Your task to perform on an android device: delete location history Image 0: 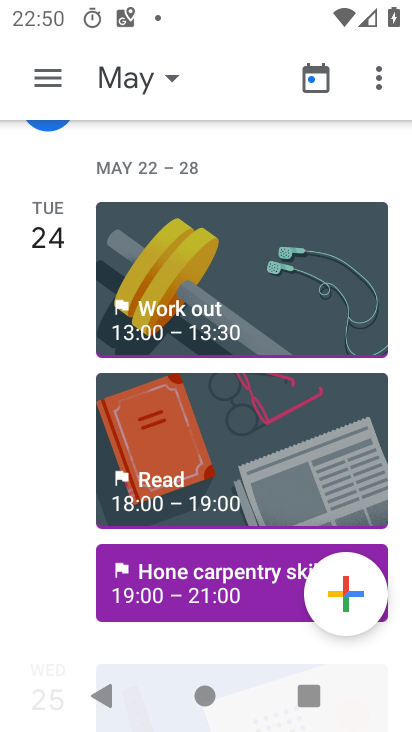
Step 0: press home button
Your task to perform on an android device: delete location history Image 1: 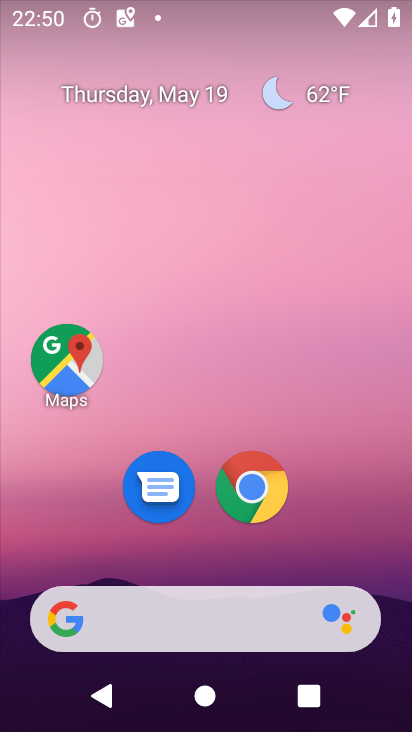
Step 1: drag from (330, 542) to (312, 148)
Your task to perform on an android device: delete location history Image 2: 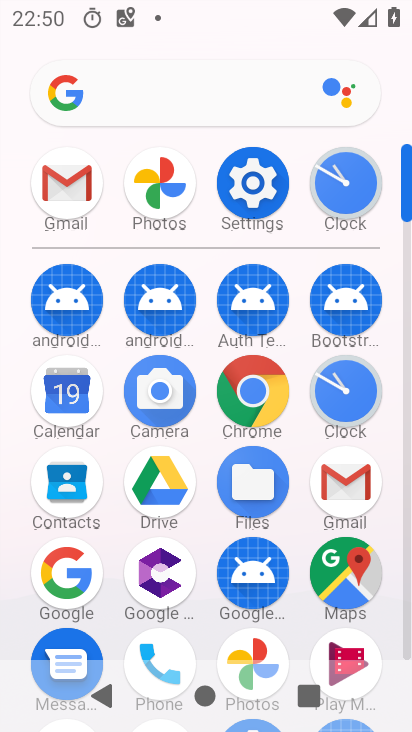
Step 2: click (258, 177)
Your task to perform on an android device: delete location history Image 3: 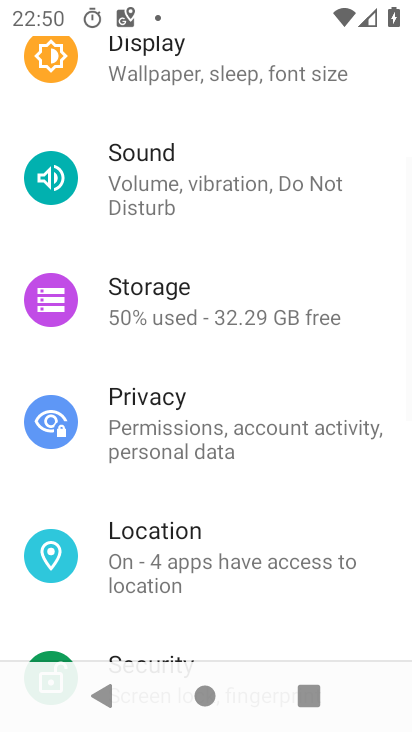
Step 3: click (216, 557)
Your task to perform on an android device: delete location history Image 4: 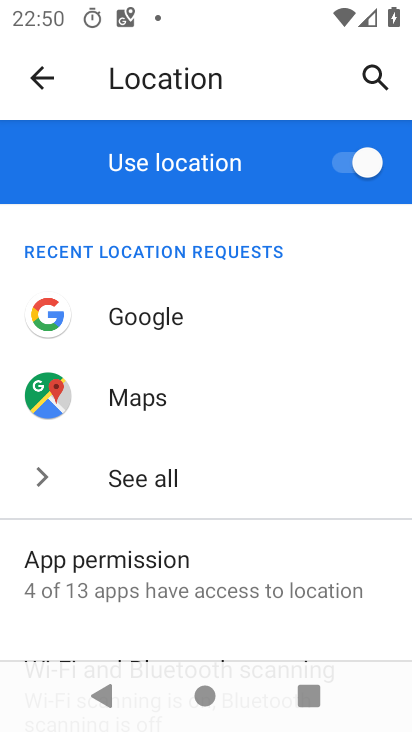
Step 4: drag from (239, 569) to (245, 363)
Your task to perform on an android device: delete location history Image 5: 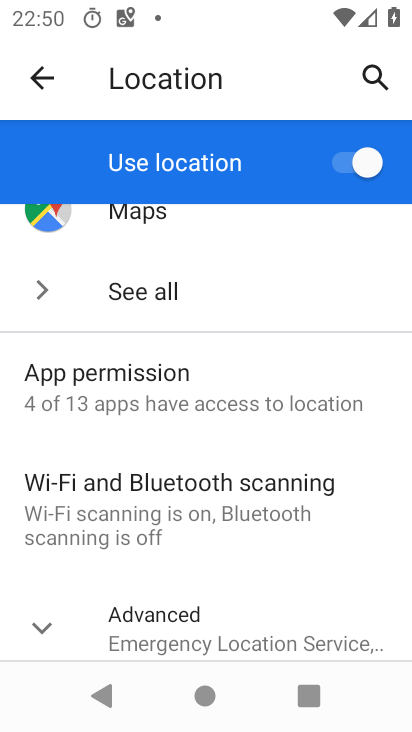
Step 5: drag from (249, 617) to (261, 366)
Your task to perform on an android device: delete location history Image 6: 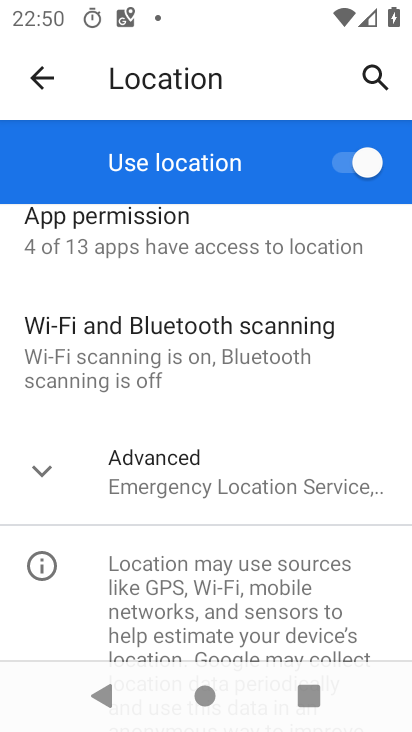
Step 6: click (247, 486)
Your task to perform on an android device: delete location history Image 7: 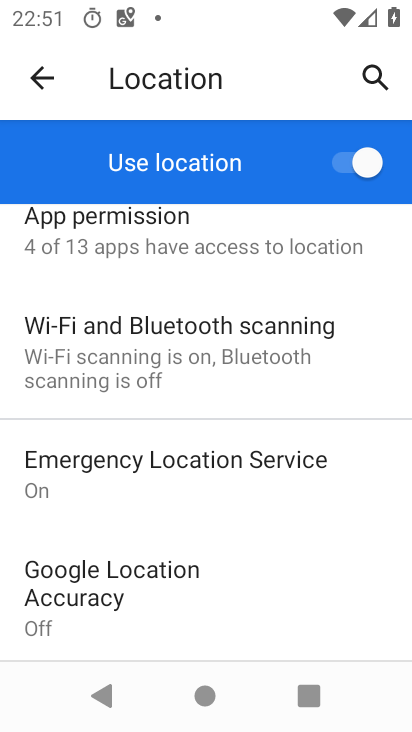
Step 7: drag from (300, 613) to (295, 350)
Your task to perform on an android device: delete location history Image 8: 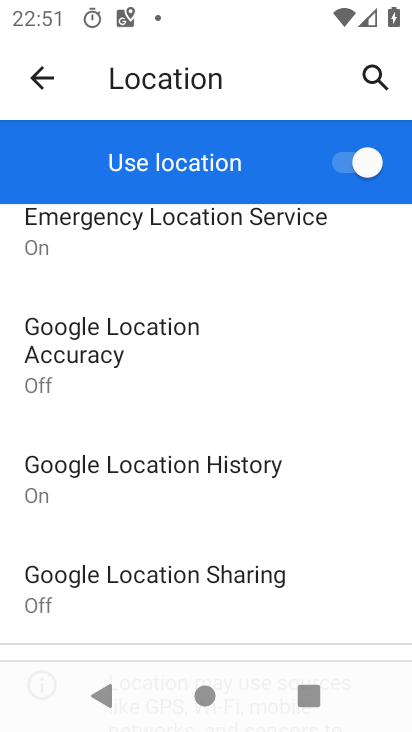
Step 8: click (218, 478)
Your task to perform on an android device: delete location history Image 9: 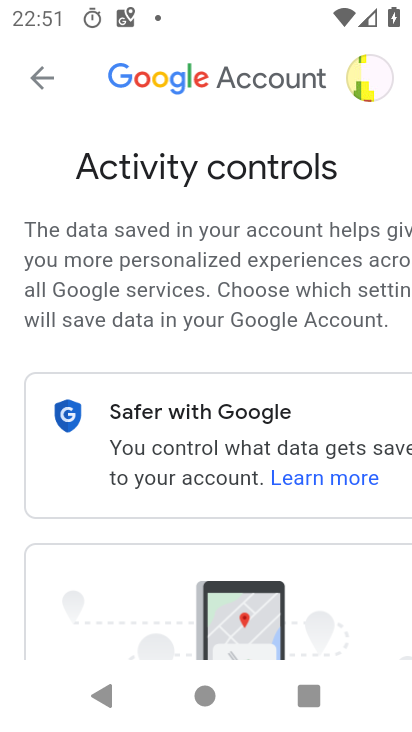
Step 9: drag from (315, 579) to (275, 369)
Your task to perform on an android device: delete location history Image 10: 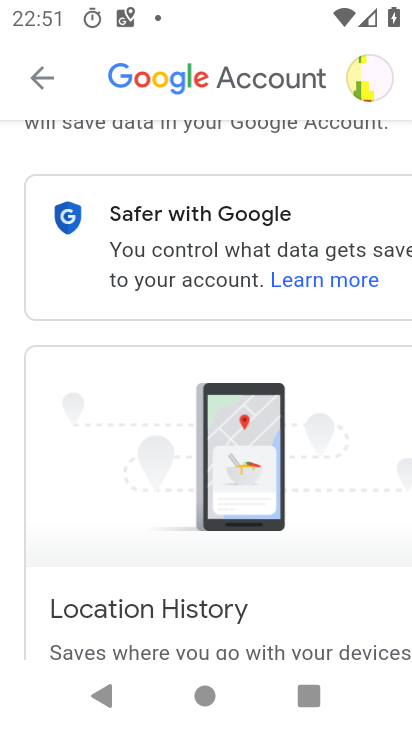
Step 10: drag from (318, 596) to (292, 316)
Your task to perform on an android device: delete location history Image 11: 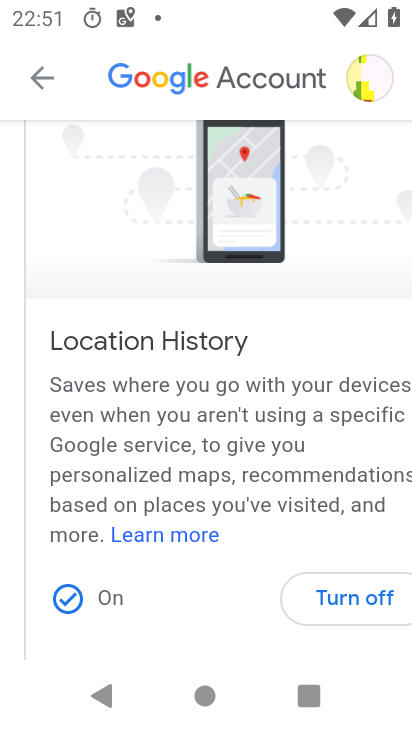
Step 11: drag from (233, 569) to (191, 278)
Your task to perform on an android device: delete location history Image 12: 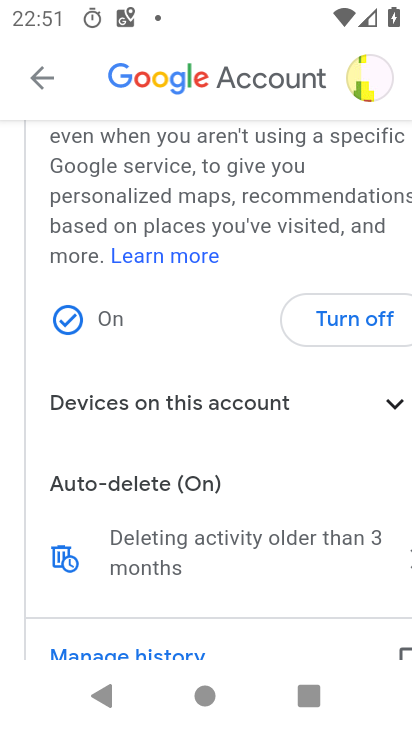
Step 12: drag from (296, 580) to (227, 242)
Your task to perform on an android device: delete location history Image 13: 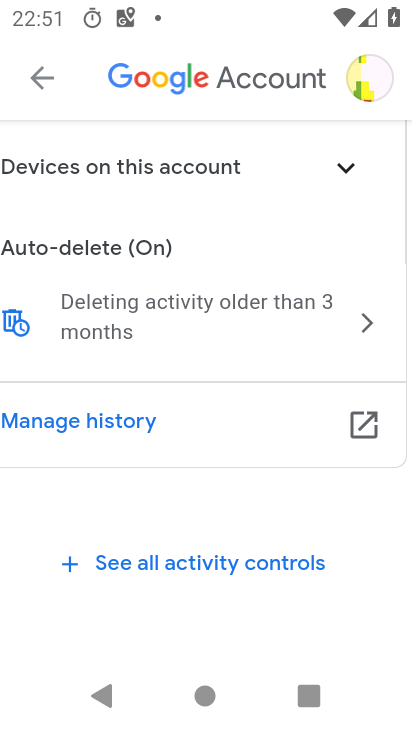
Step 13: click (357, 430)
Your task to perform on an android device: delete location history Image 14: 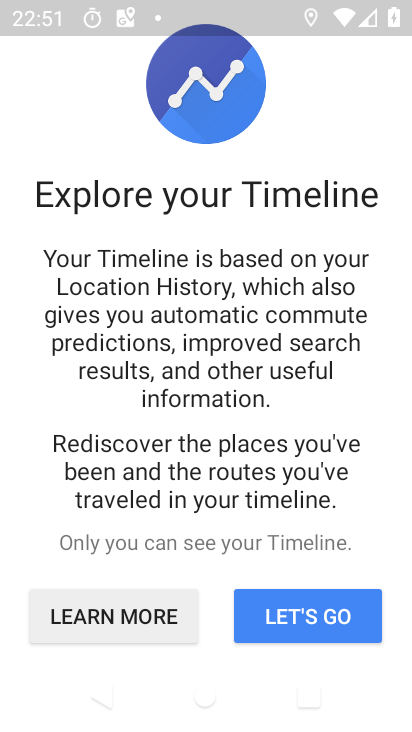
Step 14: click (346, 623)
Your task to perform on an android device: delete location history Image 15: 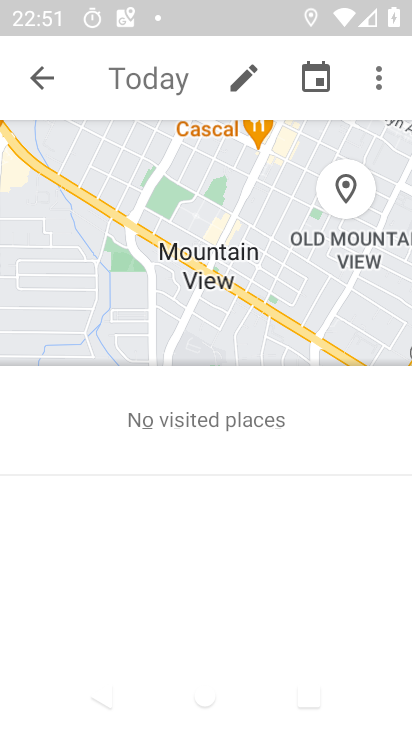
Step 15: click (383, 80)
Your task to perform on an android device: delete location history Image 16: 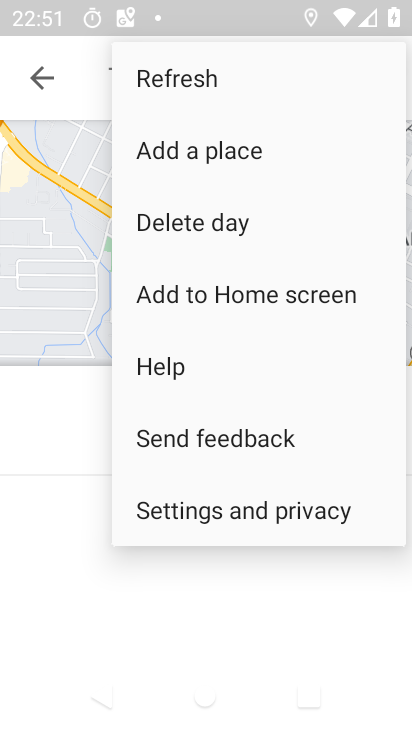
Step 16: click (261, 513)
Your task to perform on an android device: delete location history Image 17: 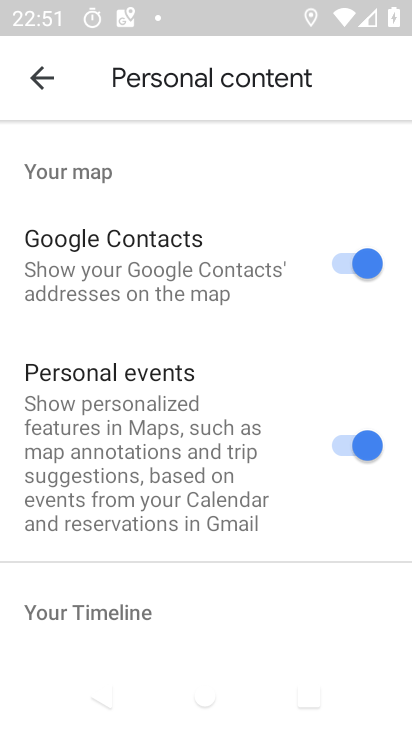
Step 17: drag from (260, 563) to (239, 280)
Your task to perform on an android device: delete location history Image 18: 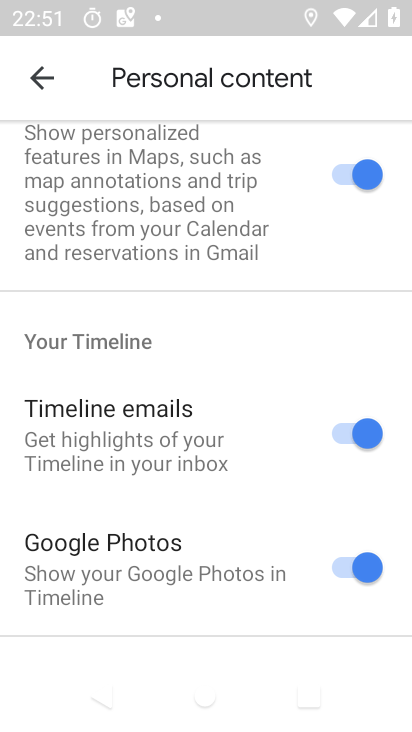
Step 18: drag from (243, 602) to (238, 350)
Your task to perform on an android device: delete location history Image 19: 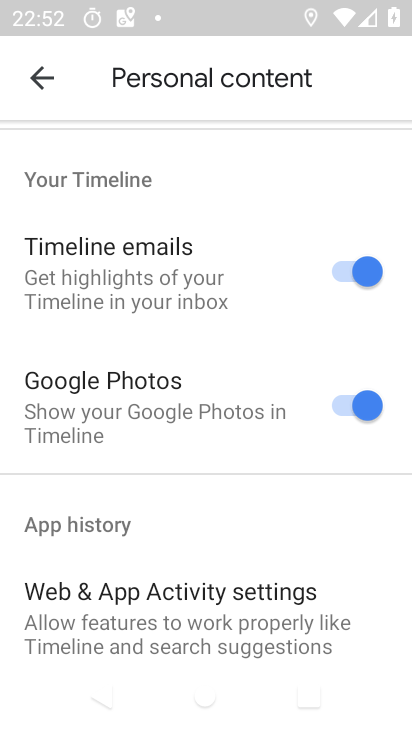
Step 19: drag from (253, 614) to (242, 288)
Your task to perform on an android device: delete location history Image 20: 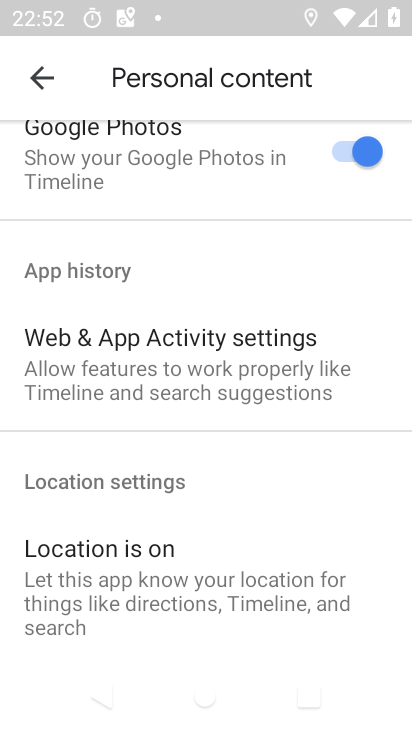
Step 20: drag from (257, 580) to (274, 117)
Your task to perform on an android device: delete location history Image 21: 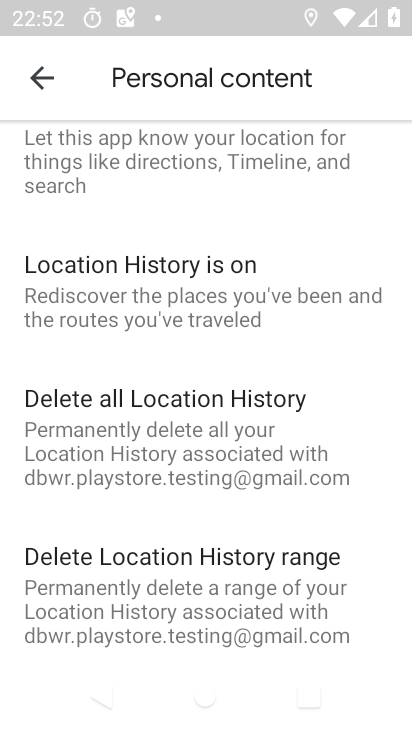
Step 21: click (255, 450)
Your task to perform on an android device: delete location history Image 22: 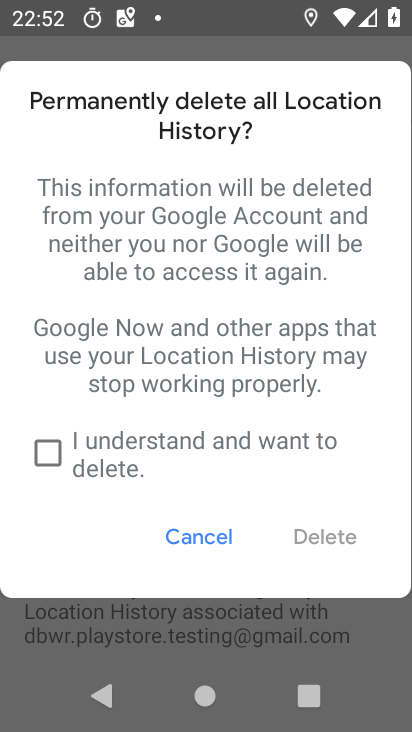
Step 22: click (43, 455)
Your task to perform on an android device: delete location history Image 23: 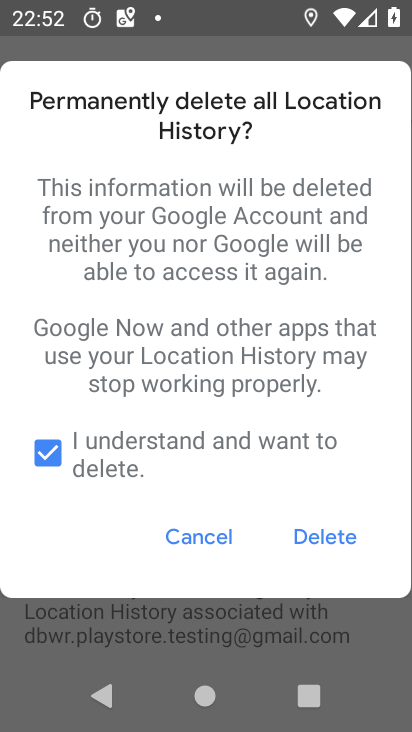
Step 23: click (327, 531)
Your task to perform on an android device: delete location history Image 24: 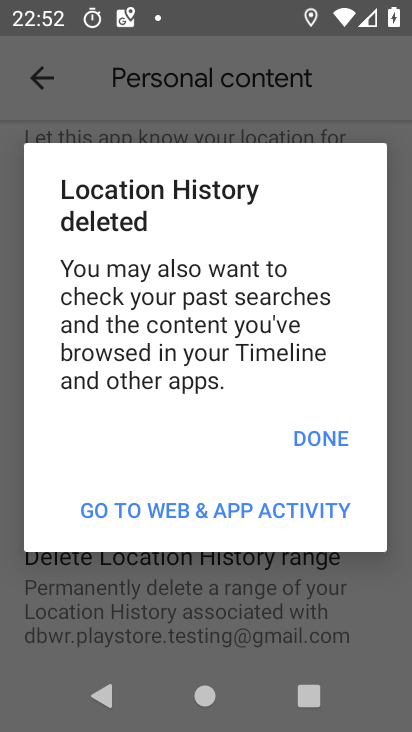
Step 24: click (331, 431)
Your task to perform on an android device: delete location history Image 25: 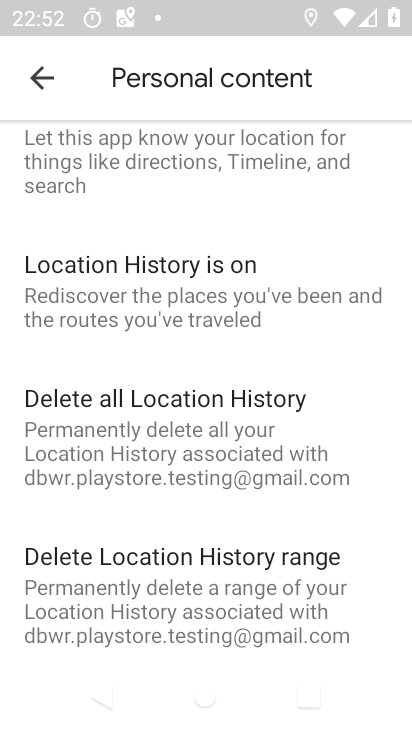
Step 25: task complete